Your task to perform on an android device: Open Google Image 0: 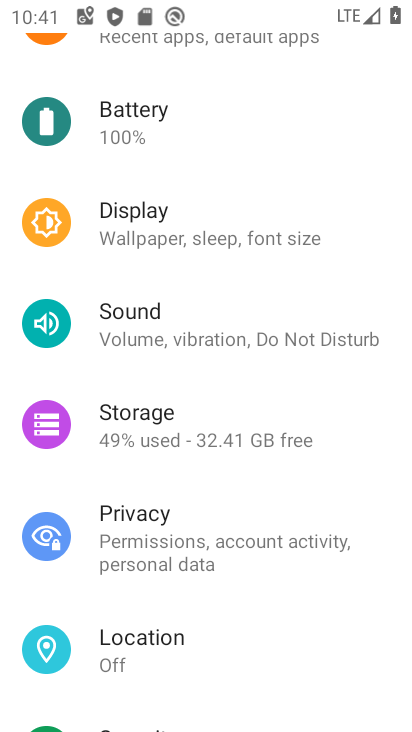
Step 0: press home button
Your task to perform on an android device: Open Google Image 1: 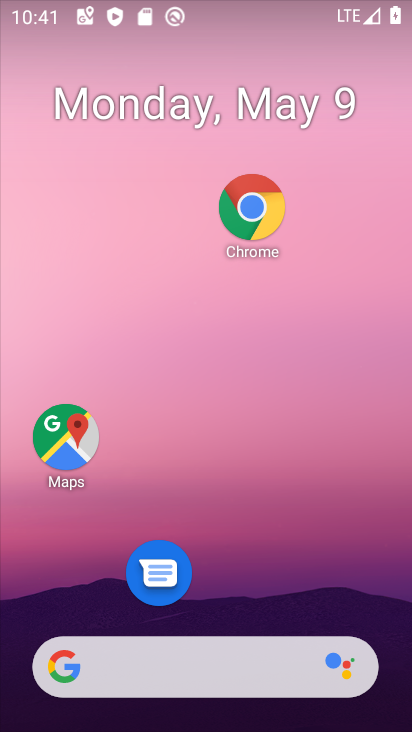
Step 1: drag from (156, 528) to (195, 109)
Your task to perform on an android device: Open Google Image 2: 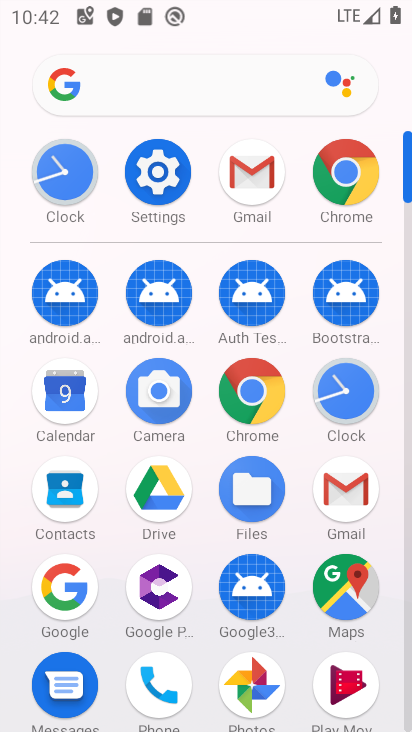
Step 2: click (90, 602)
Your task to perform on an android device: Open Google Image 3: 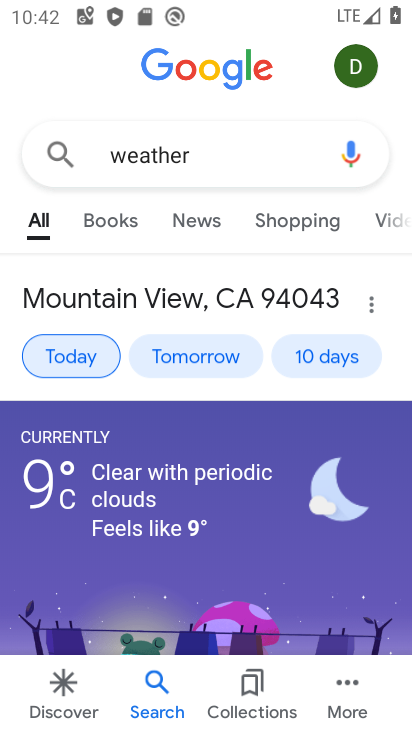
Step 3: task complete